Your task to perform on an android device: change notification settings in the gmail app Image 0: 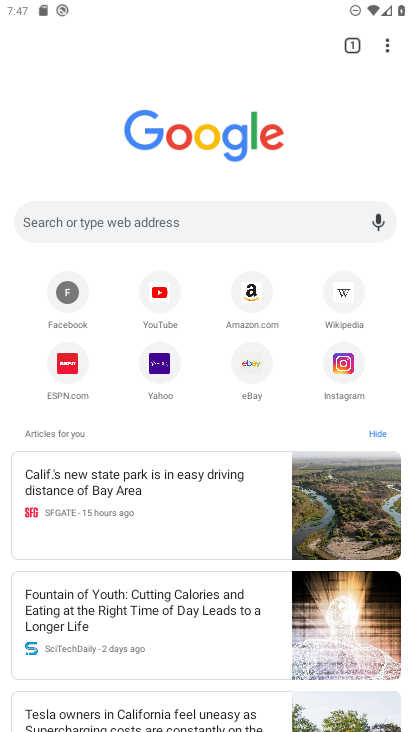
Step 0: press home button
Your task to perform on an android device: change notification settings in the gmail app Image 1: 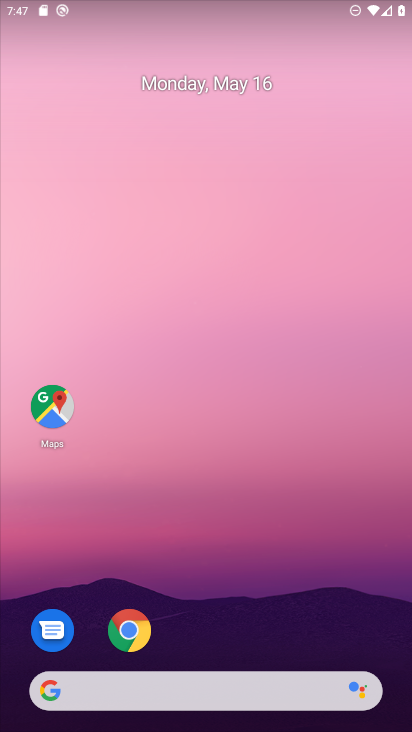
Step 1: drag from (302, 524) to (256, 158)
Your task to perform on an android device: change notification settings in the gmail app Image 2: 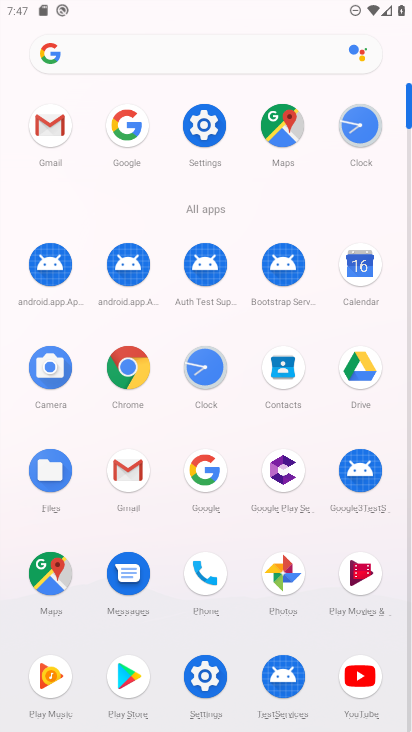
Step 2: click (53, 480)
Your task to perform on an android device: change notification settings in the gmail app Image 3: 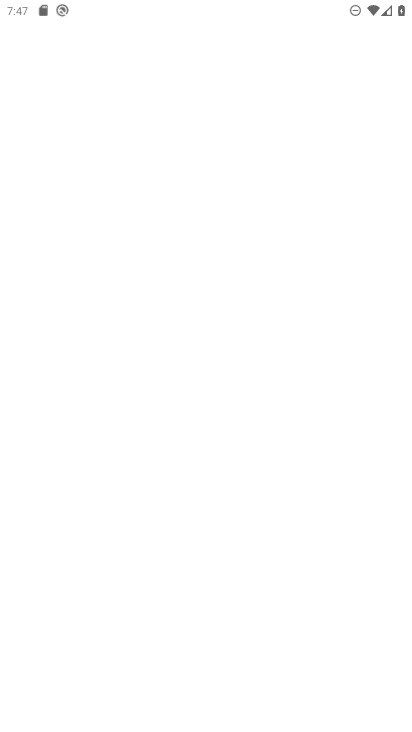
Step 3: click (113, 480)
Your task to perform on an android device: change notification settings in the gmail app Image 4: 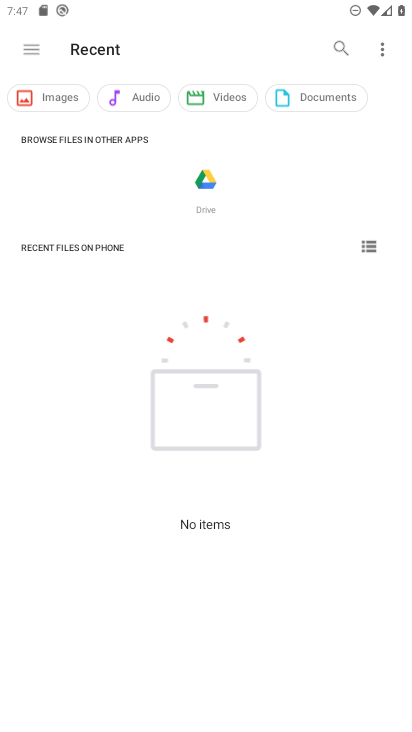
Step 4: press back button
Your task to perform on an android device: change notification settings in the gmail app Image 5: 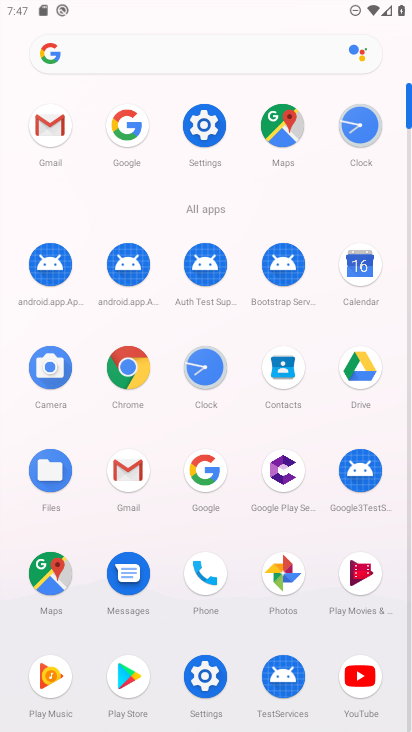
Step 5: click (142, 475)
Your task to perform on an android device: change notification settings in the gmail app Image 6: 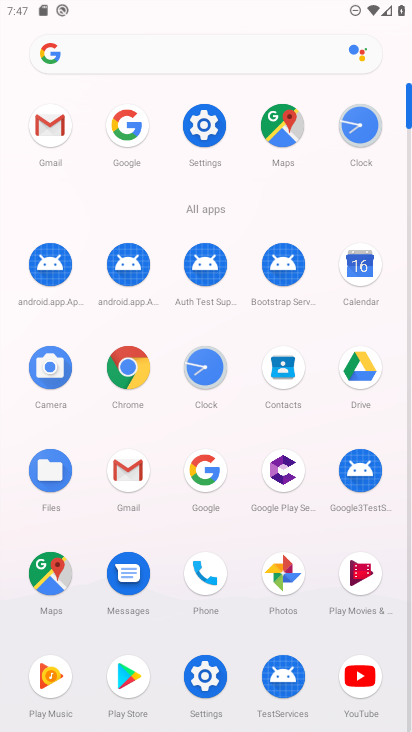
Step 6: click (142, 475)
Your task to perform on an android device: change notification settings in the gmail app Image 7: 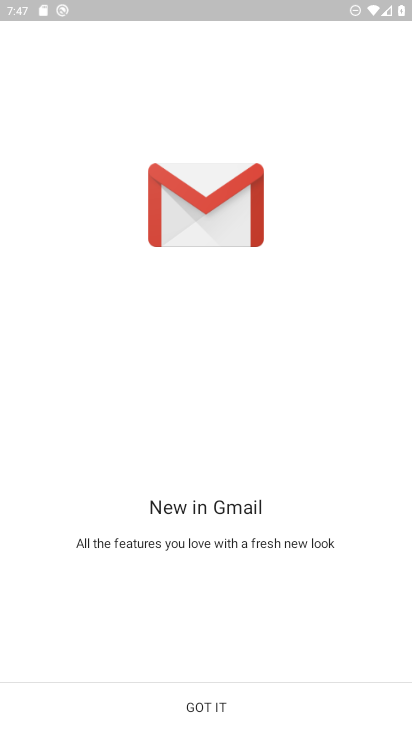
Step 7: click (193, 699)
Your task to perform on an android device: change notification settings in the gmail app Image 8: 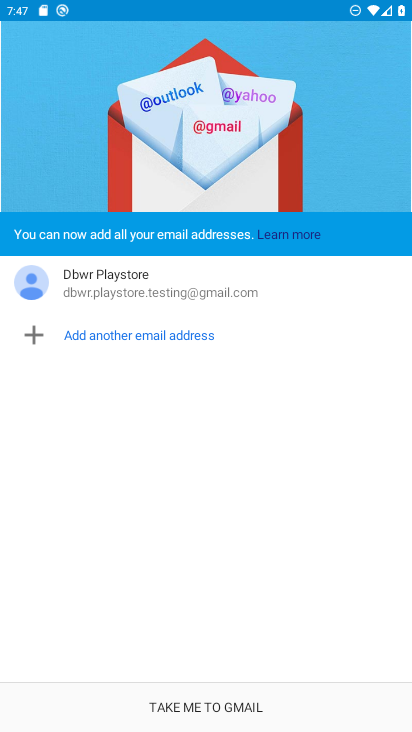
Step 8: drag from (5, 97) to (203, 137)
Your task to perform on an android device: change notification settings in the gmail app Image 9: 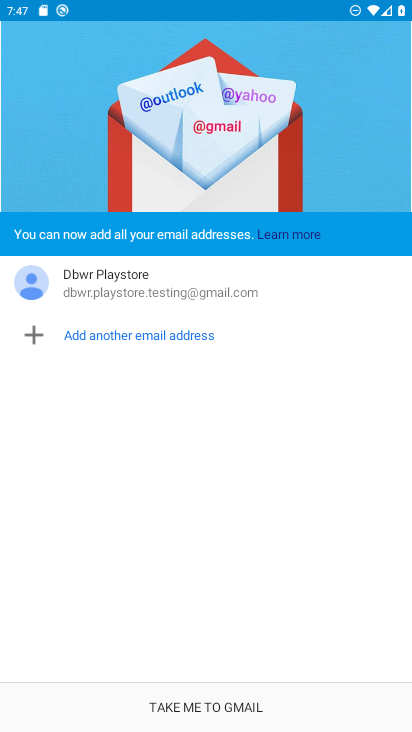
Step 9: click (58, 229)
Your task to perform on an android device: change notification settings in the gmail app Image 10: 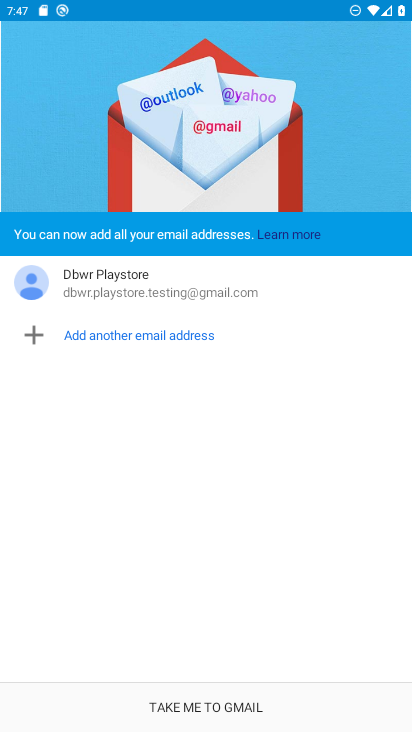
Step 10: task complete